Your task to perform on an android device: Add usb-a to the cart on ebay Image 0: 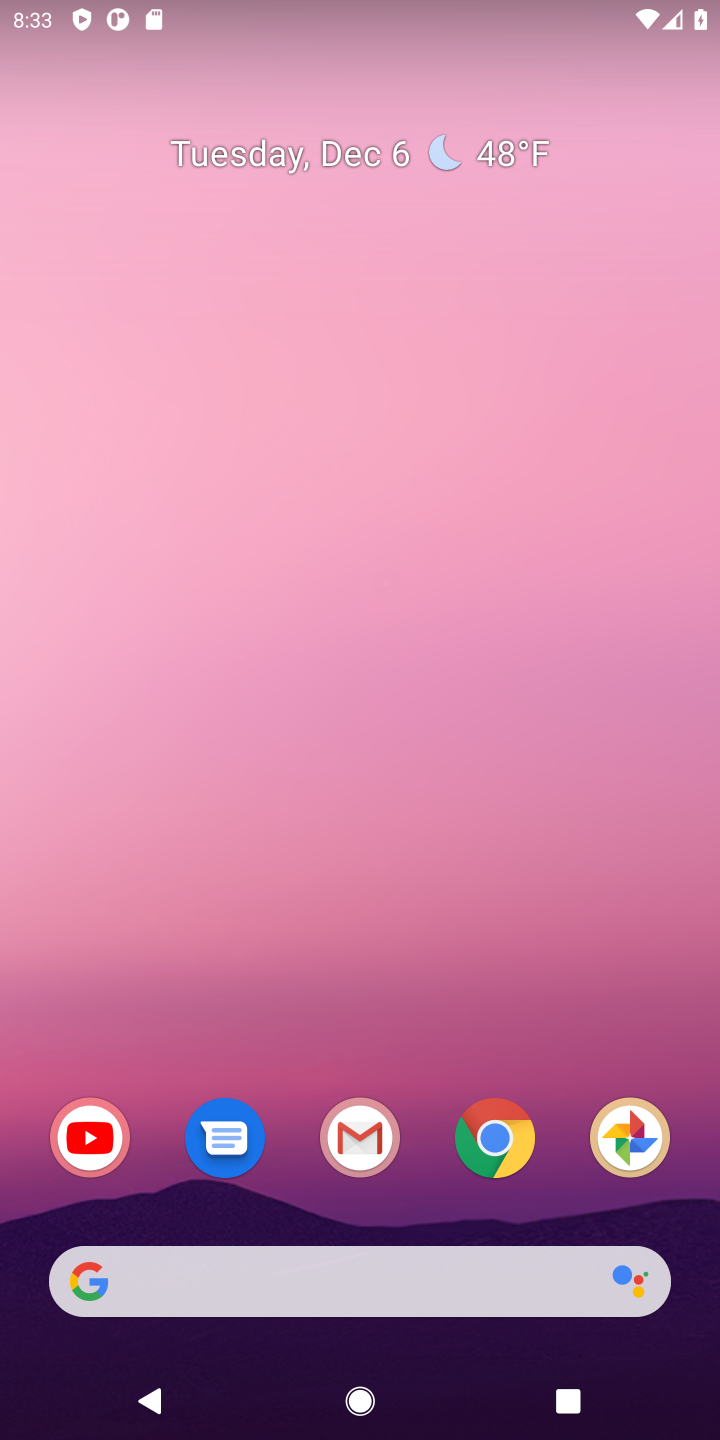
Step 0: click (512, 1145)
Your task to perform on an android device: Add usb-a to the cart on ebay Image 1: 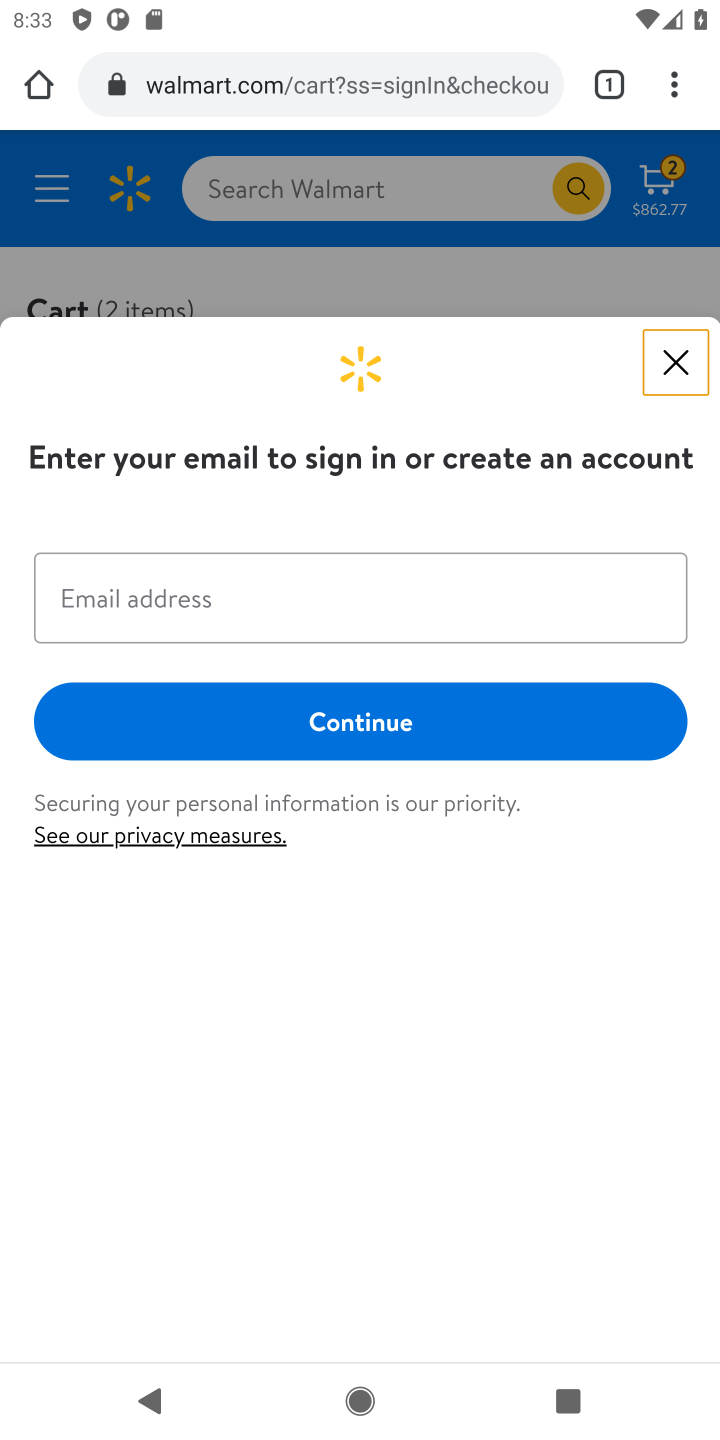
Step 1: click (303, 85)
Your task to perform on an android device: Add usb-a to the cart on ebay Image 2: 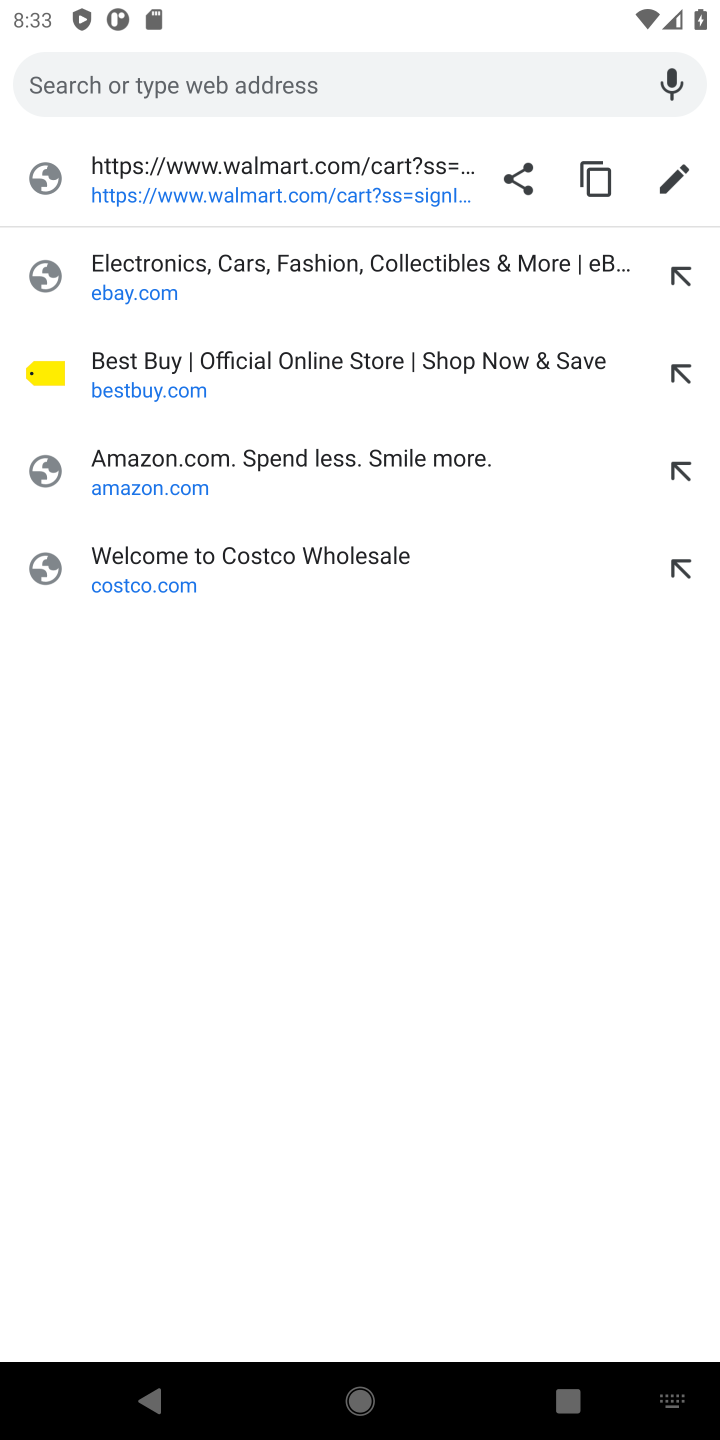
Step 2: click (134, 275)
Your task to perform on an android device: Add usb-a to the cart on ebay Image 3: 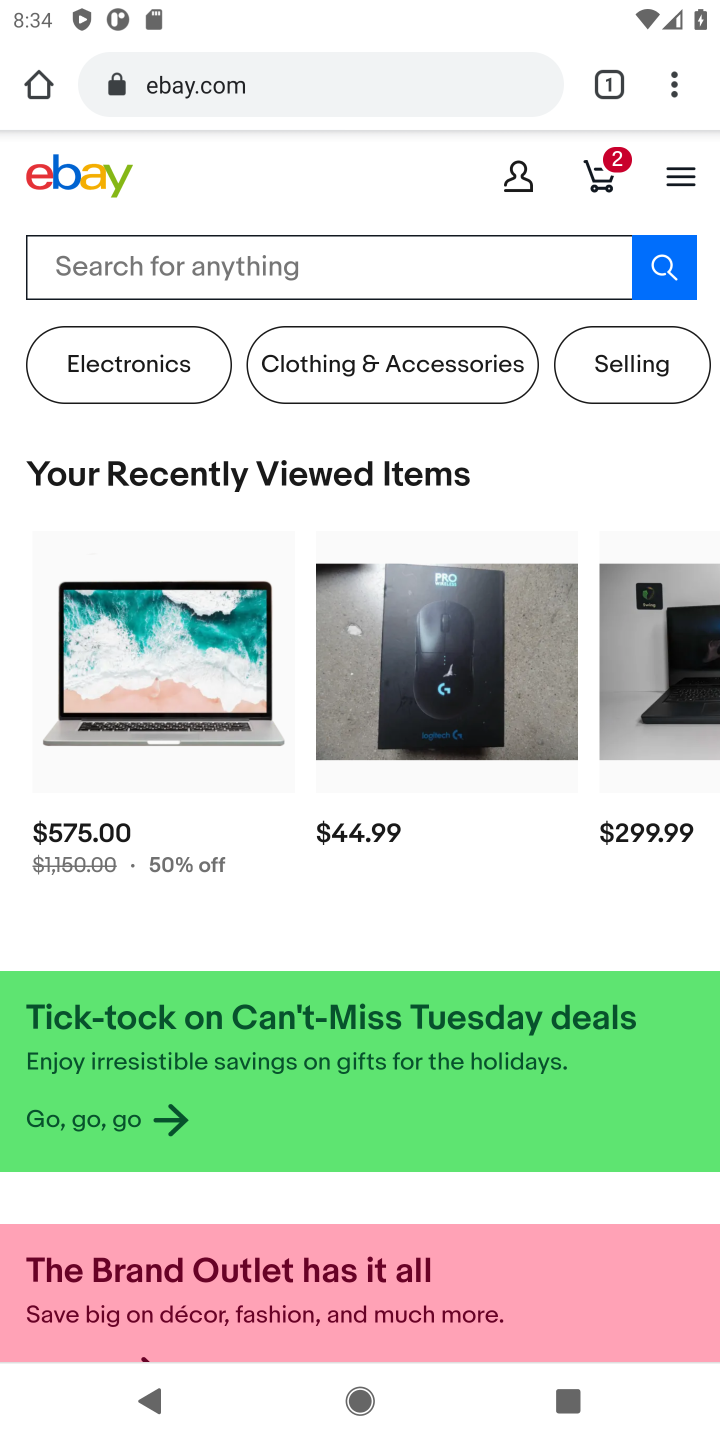
Step 3: click (134, 275)
Your task to perform on an android device: Add usb-a to the cart on ebay Image 4: 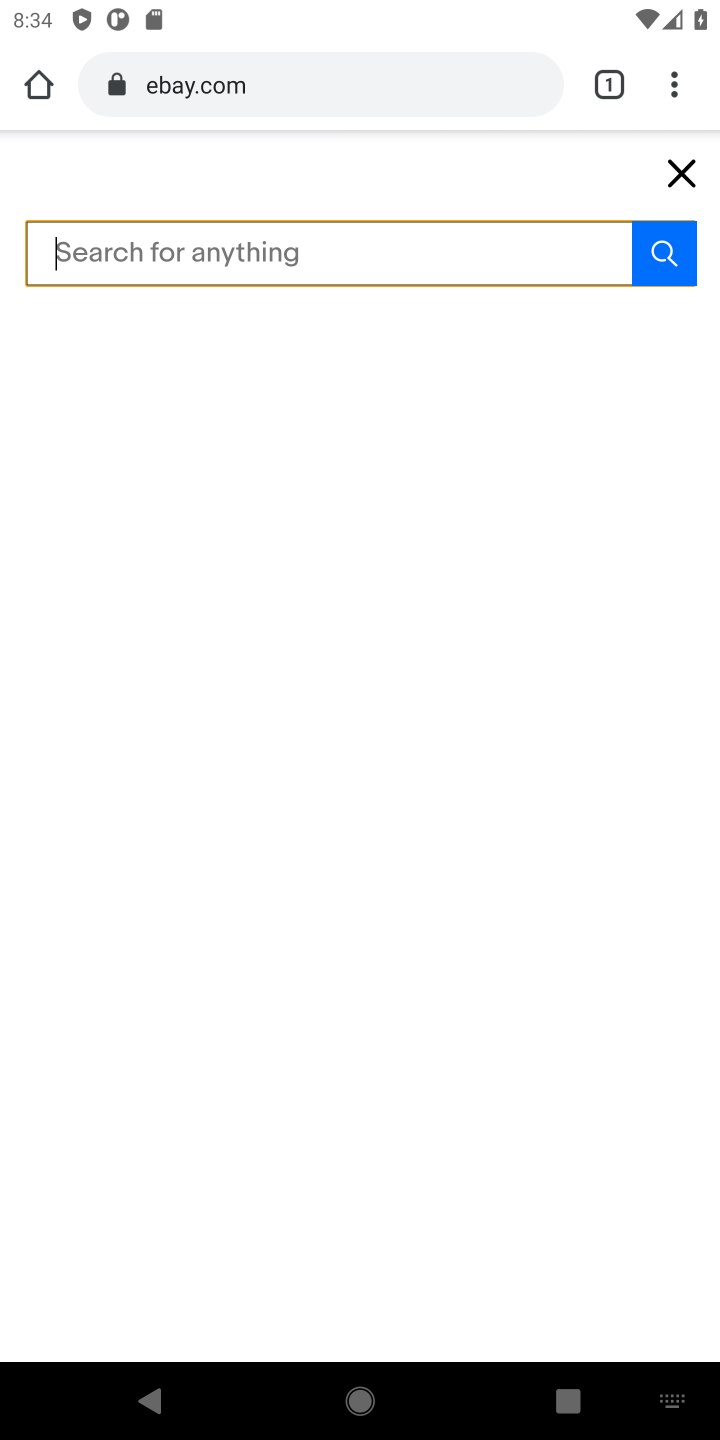
Step 4: type "usb-a"
Your task to perform on an android device: Add usb-a to the cart on ebay Image 5: 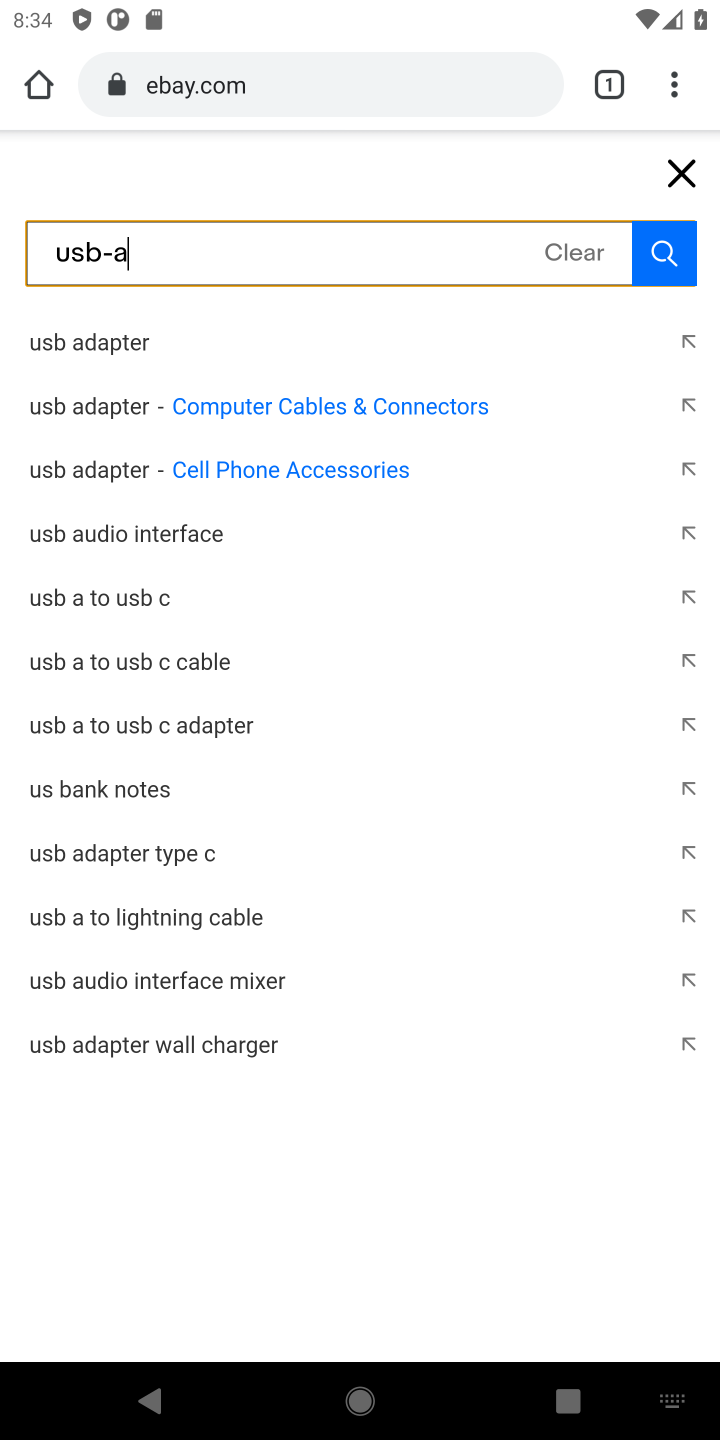
Step 5: click (667, 261)
Your task to perform on an android device: Add usb-a to the cart on ebay Image 6: 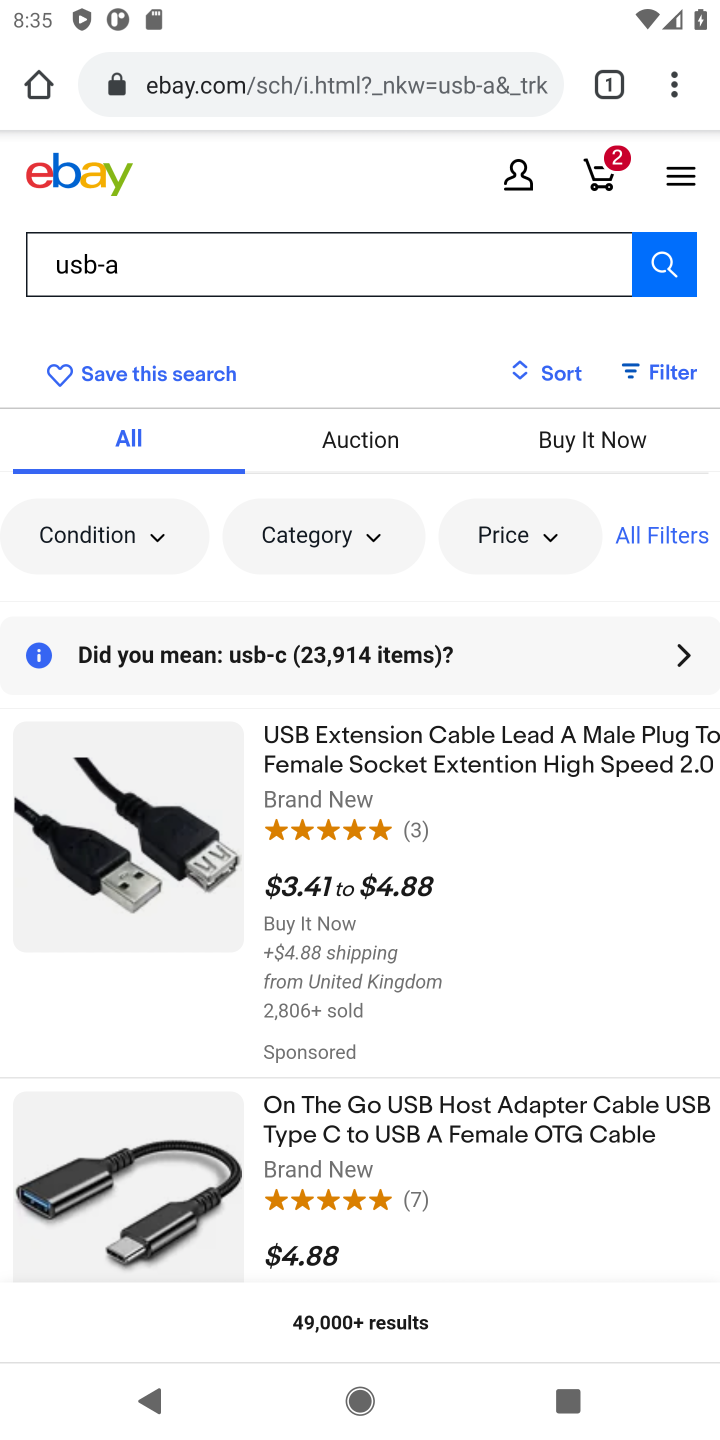
Step 6: click (313, 1165)
Your task to perform on an android device: Add usb-a to the cart on ebay Image 7: 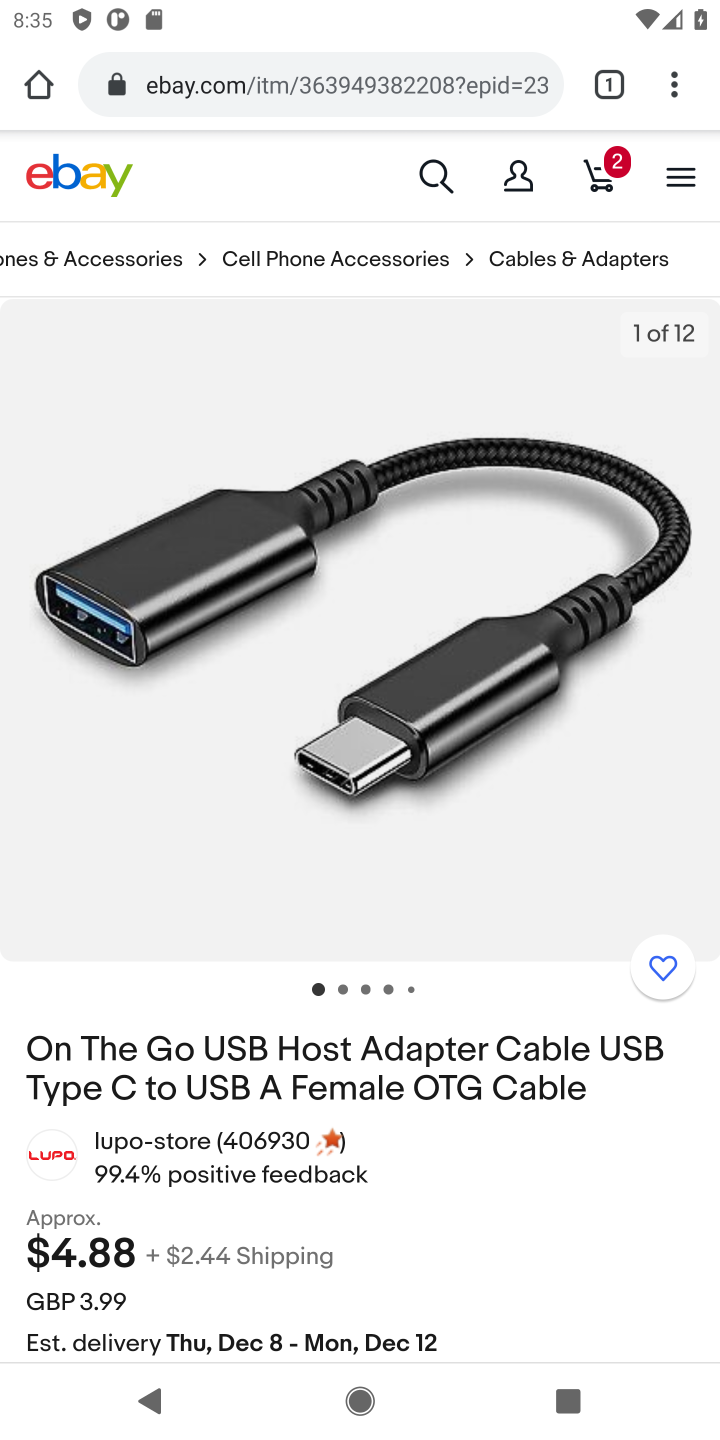
Step 7: drag from (378, 1146) to (267, 402)
Your task to perform on an android device: Add usb-a to the cart on ebay Image 8: 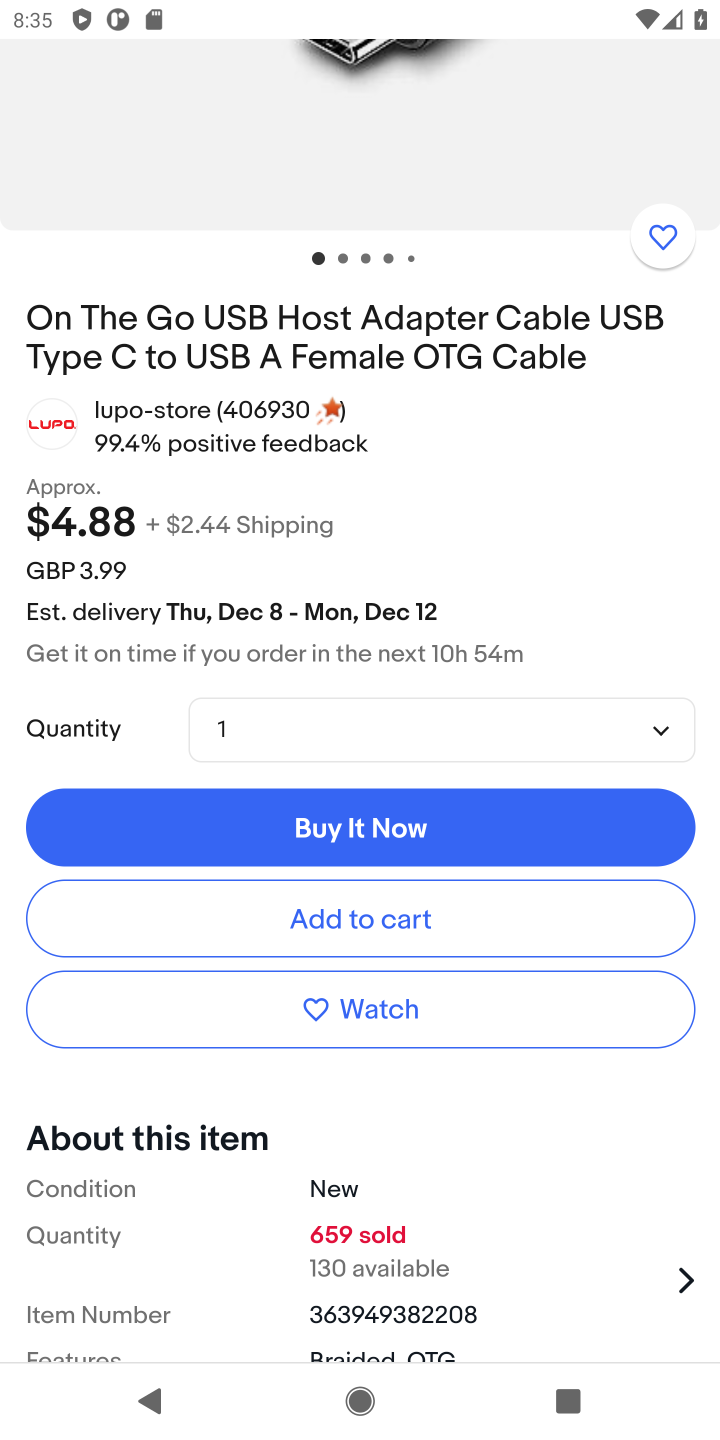
Step 8: click (308, 908)
Your task to perform on an android device: Add usb-a to the cart on ebay Image 9: 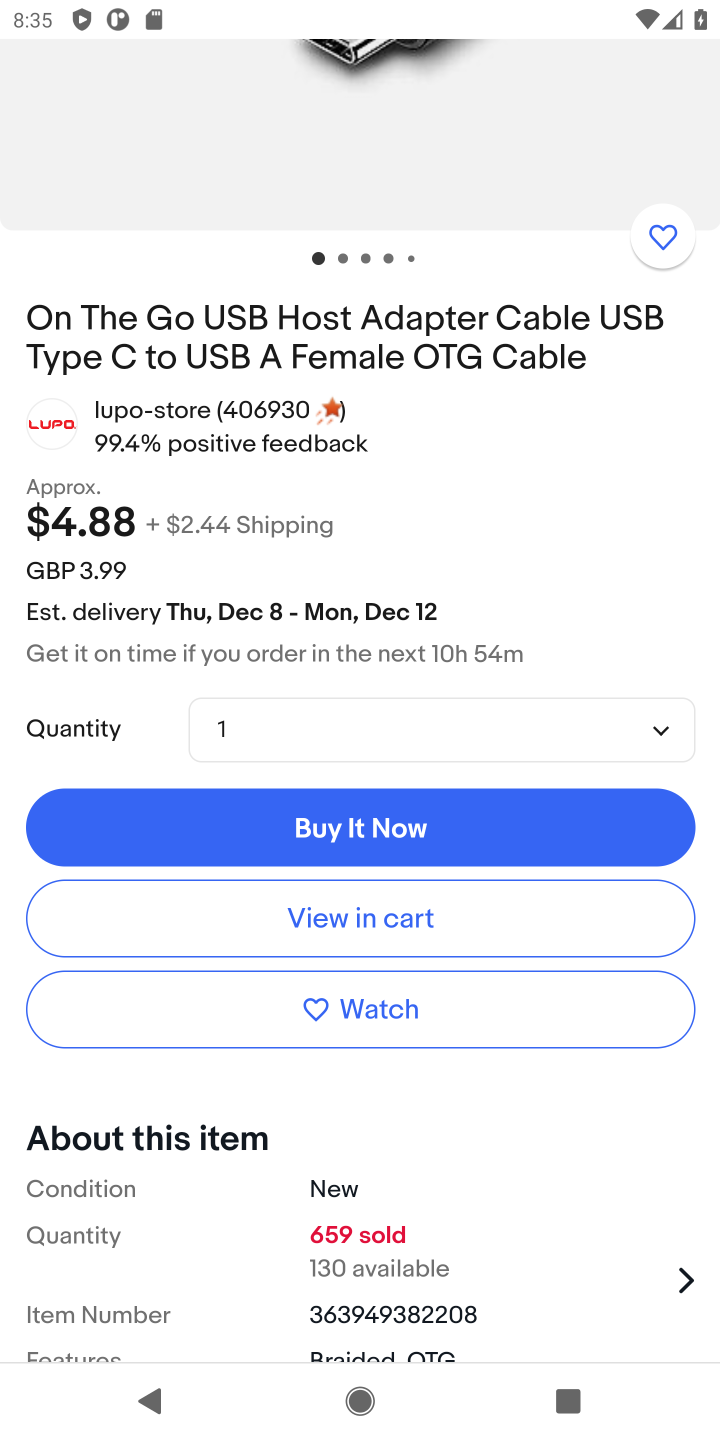
Step 9: task complete